Your task to perform on an android device: change the upload size in google photos Image 0: 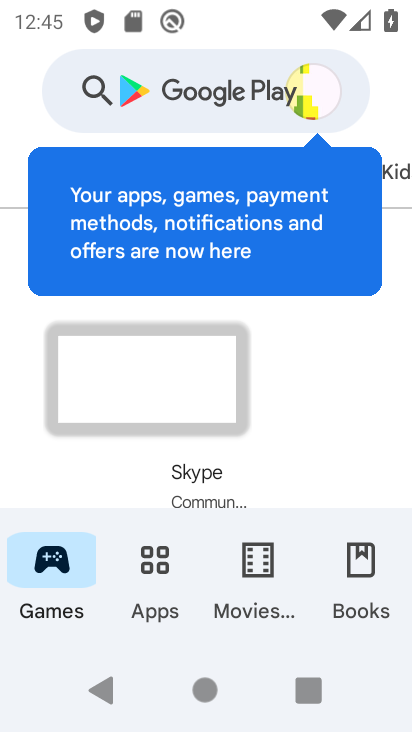
Step 0: press home button
Your task to perform on an android device: change the upload size in google photos Image 1: 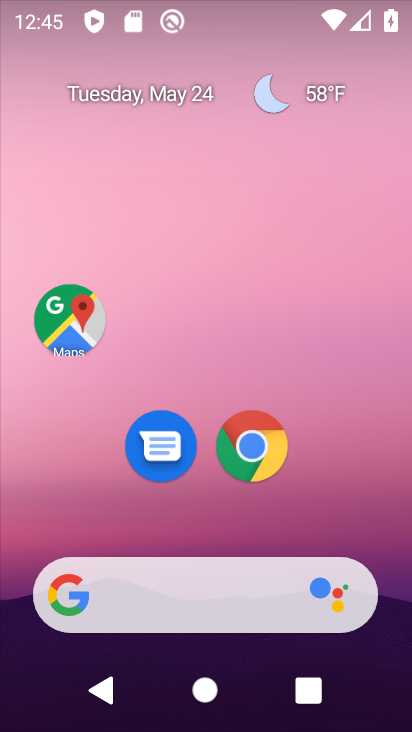
Step 1: drag from (208, 494) to (387, 355)
Your task to perform on an android device: change the upload size in google photos Image 2: 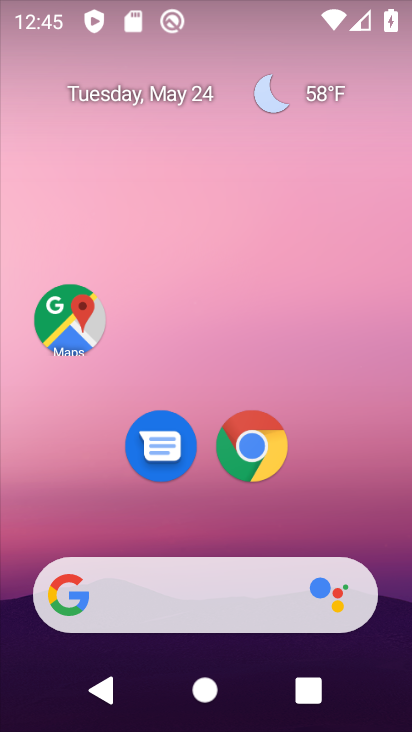
Step 2: drag from (284, 524) to (293, 4)
Your task to perform on an android device: change the upload size in google photos Image 3: 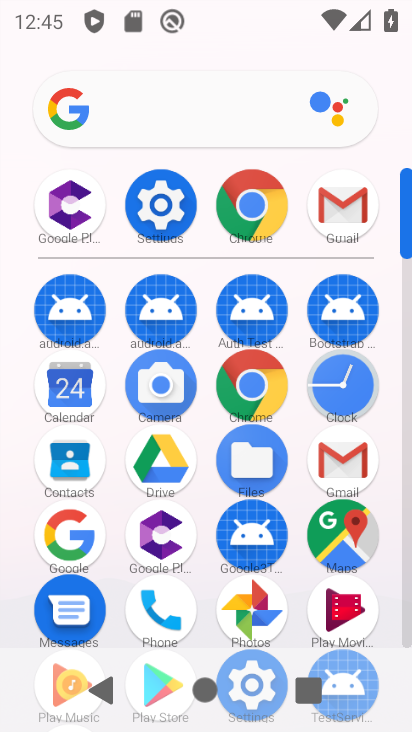
Step 3: drag from (237, 456) to (286, 82)
Your task to perform on an android device: change the upload size in google photos Image 4: 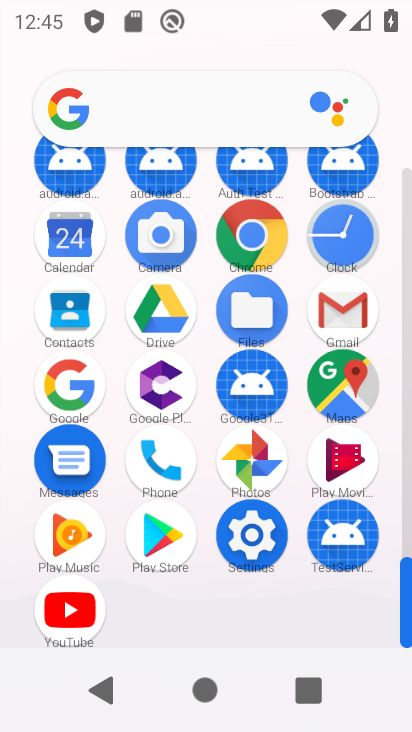
Step 4: click (265, 474)
Your task to perform on an android device: change the upload size in google photos Image 5: 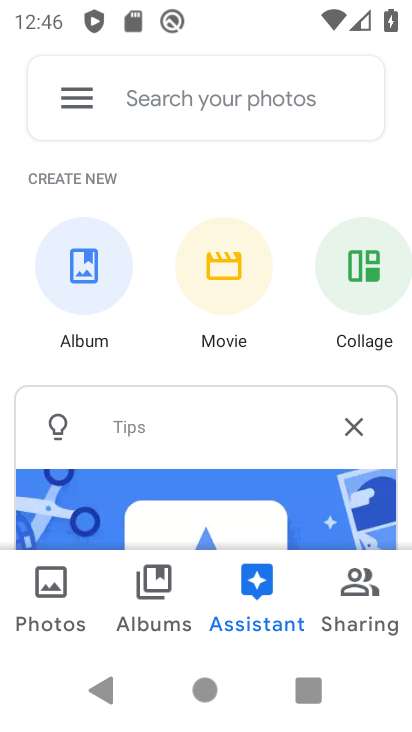
Step 5: click (67, 606)
Your task to perform on an android device: change the upload size in google photos Image 6: 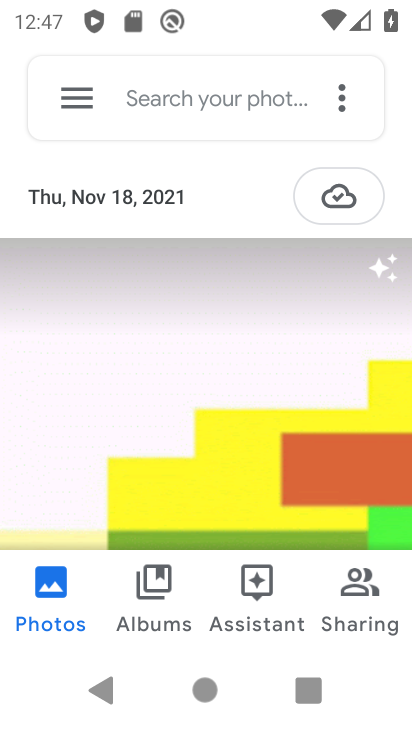
Step 6: click (83, 100)
Your task to perform on an android device: change the upload size in google photos Image 7: 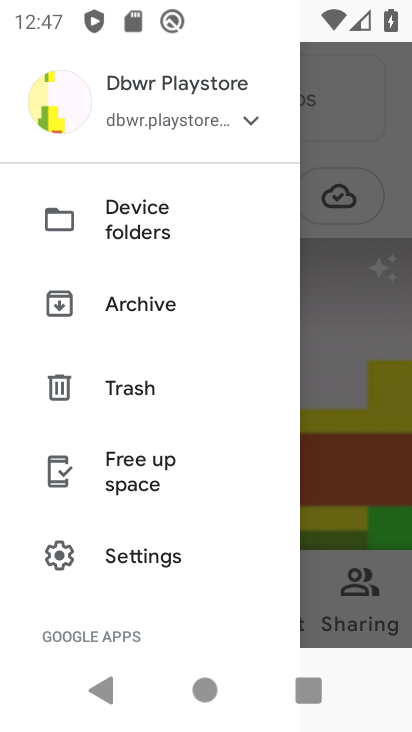
Step 7: click (105, 561)
Your task to perform on an android device: change the upload size in google photos Image 8: 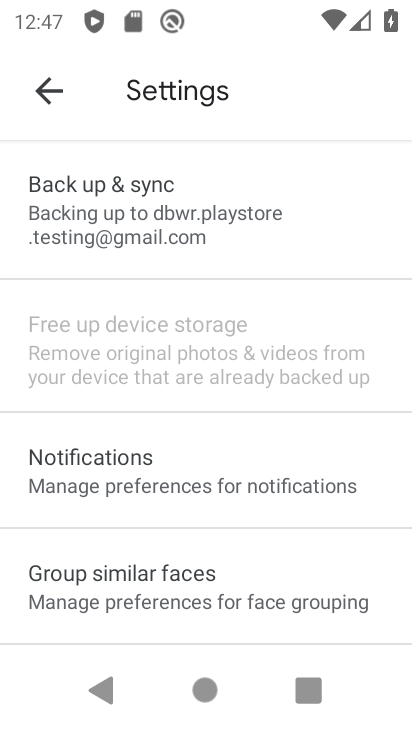
Step 8: click (203, 199)
Your task to perform on an android device: change the upload size in google photos Image 9: 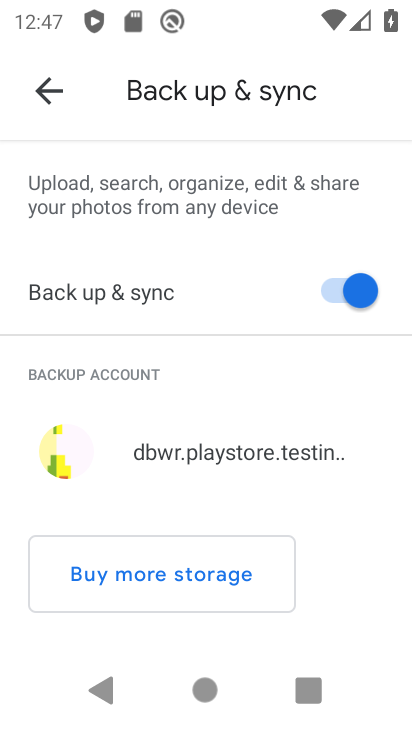
Step 9: drag from (195, 477) to (234, 201)
Your task to perform on an android device: change the upload size in google photos Image 10: 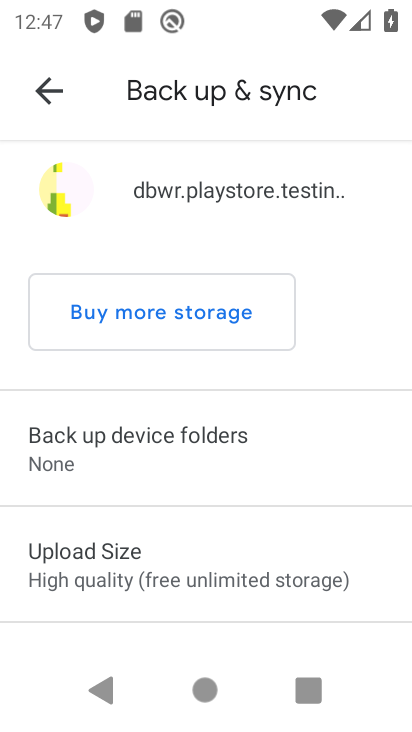
Step 10: click (182, 571)
Your task to perform on an android device: change the upload size in google photos Image 11: 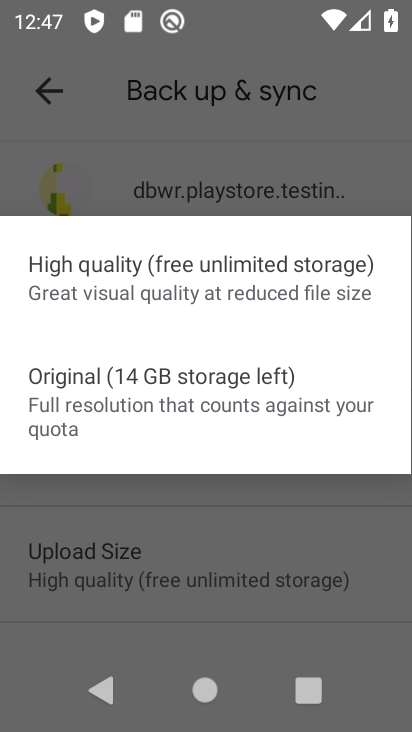
Step 11: click (214, 383)
Your task to perform on an android device: change the upload size in google photos Image 12: 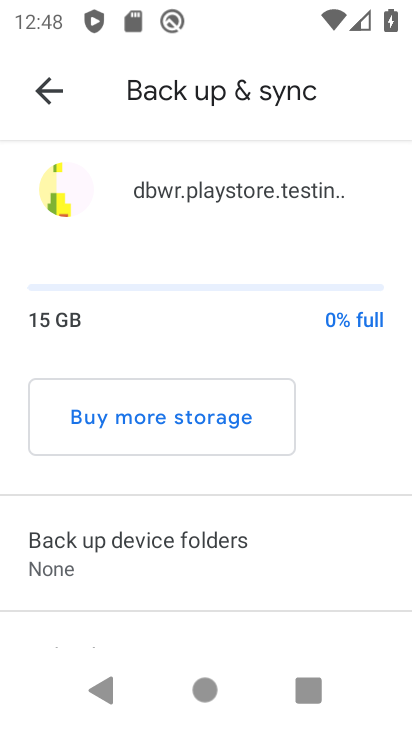
Step 12: task complete